Your task to perform on an android device: open app "ZOOM Cloud Meetings" (install if not already installed) and go to login screen Image 0: 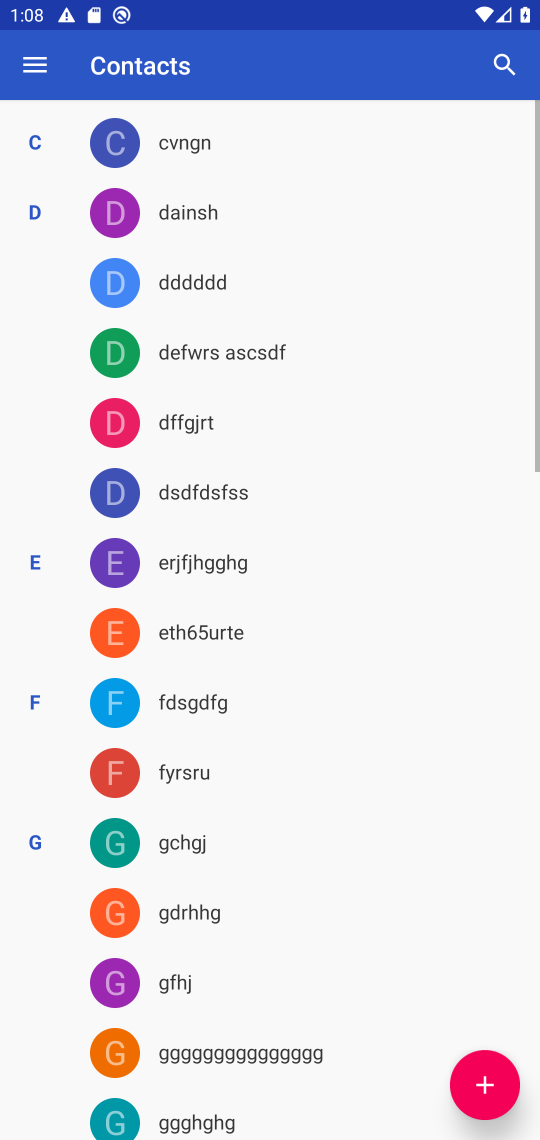
Step 0: press home button
Your task to perform on an android device: open app "ZOOM Cloud Meetings" (install if not already installed) and go to login screen Image 1: 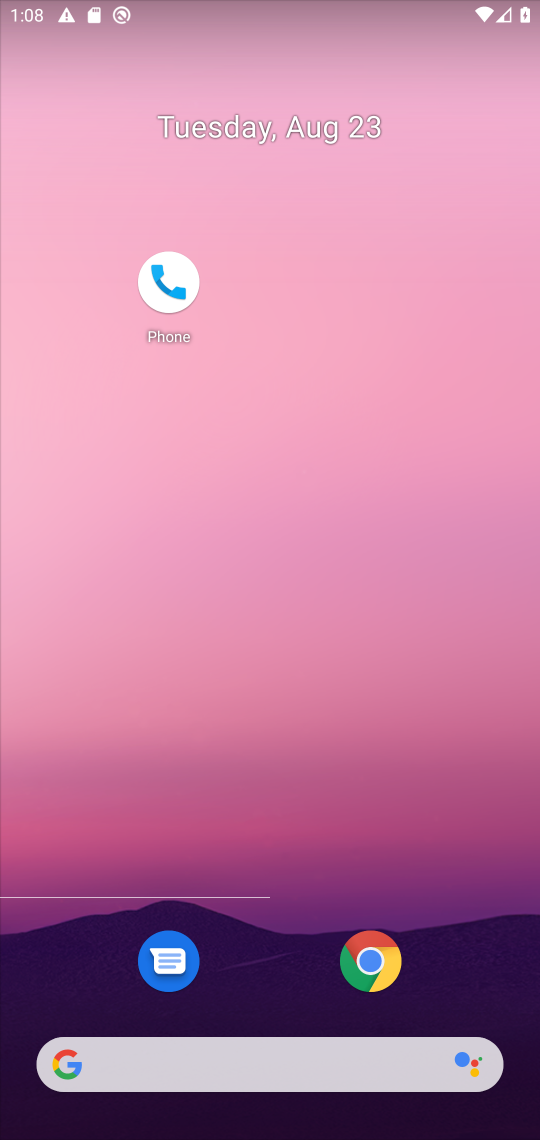
Step 1: drag from (274, 1002) to (278, 169)
Your task to perform on an android device: open app "ZOOM Cloud Meetings" (install if not already installed) and go to login screen Image 2: 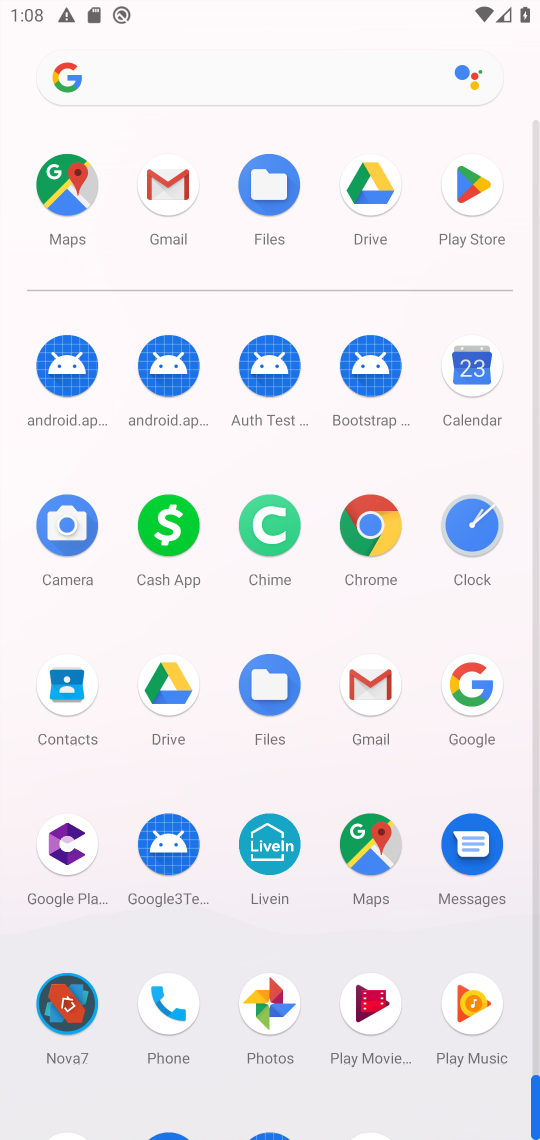
Step 2: click (458, 208)
Your task to perform on an android device: open app "ZOOM Cloud Meetings" (install if not already installed) and go to login screen Image 3: 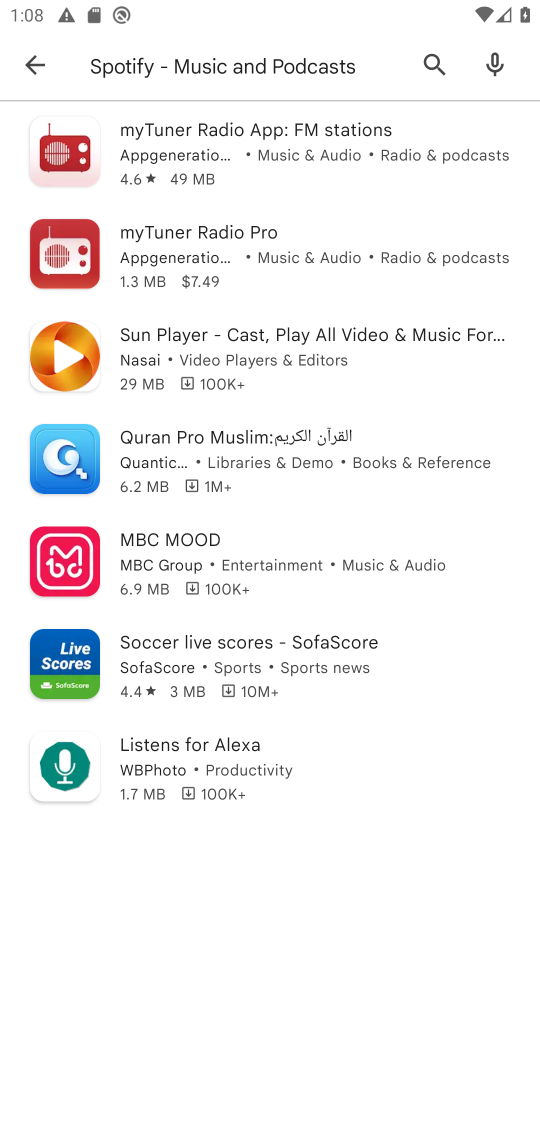
Step 3: click (460, 75)
Your task to perform on an android device: open app "ZOOM Cloud Meetings" (install if not already installed) and go to login screen Image 4: 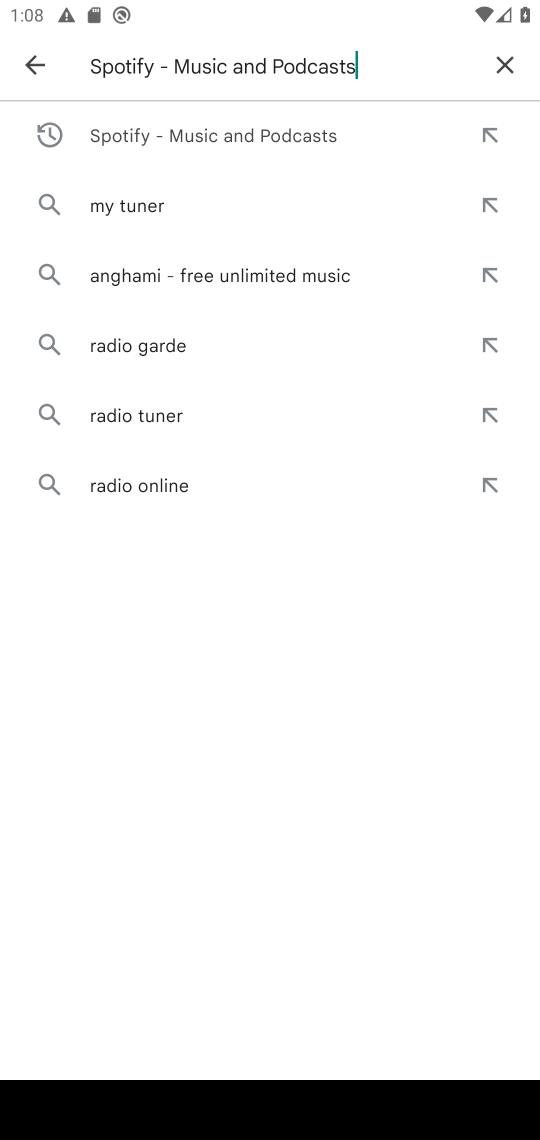
Step 4: click (513, 80)
Your task to perform on an android device: open app "ZOOM Cloud Meetings" (install if not already installed) and go to login screen Image 5: 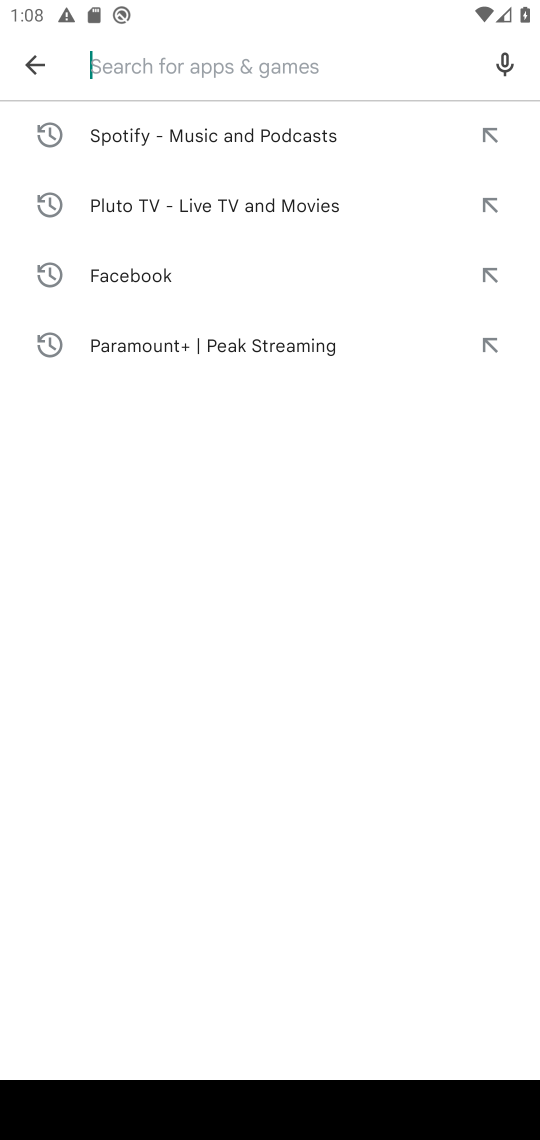
Step 5: type "zoom cloud"
Your task to perform on an android device: open app "ZOOM Cloud Meetings" (install if not already installed) and go to login screen Image 6: 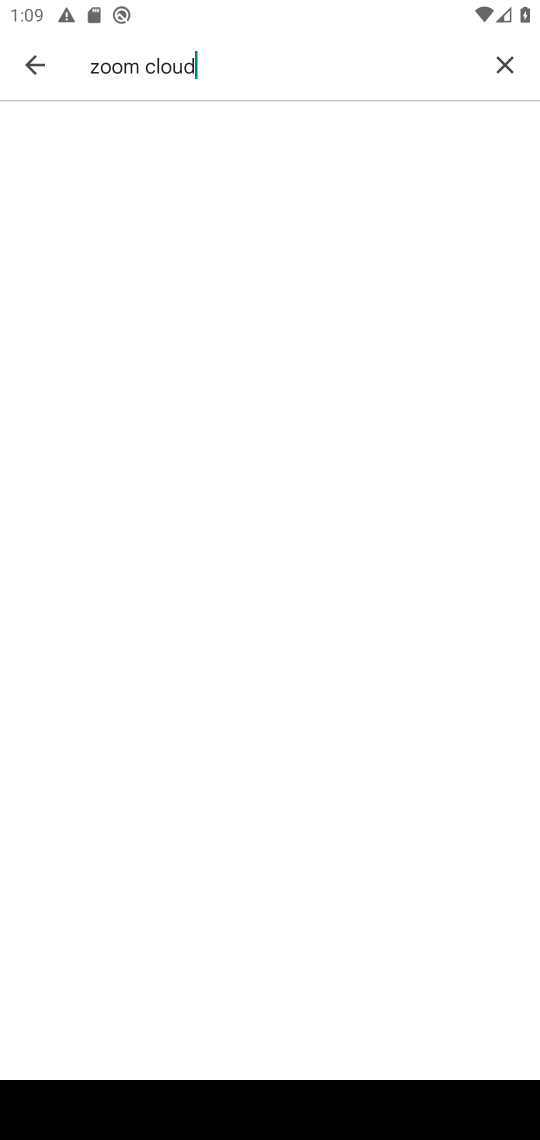
Step 6: task complete